Your task to perform on an android device: Open Youtube and go to the subscriptions tab Image 0: 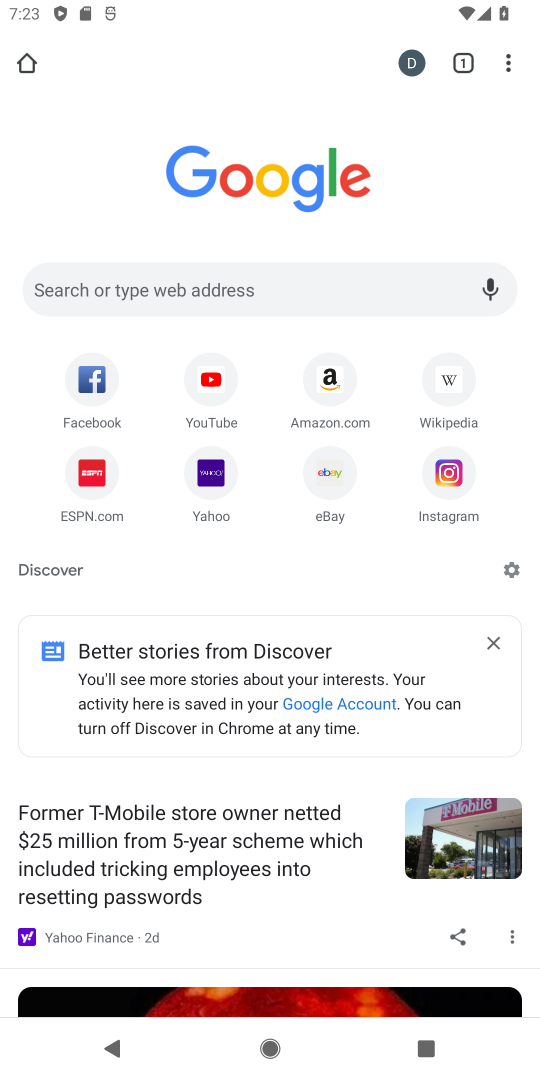
Step 0: click (214, 375)
Your task to perform on an android device: Open Youtube and go to the subscriptions tab Image 1: 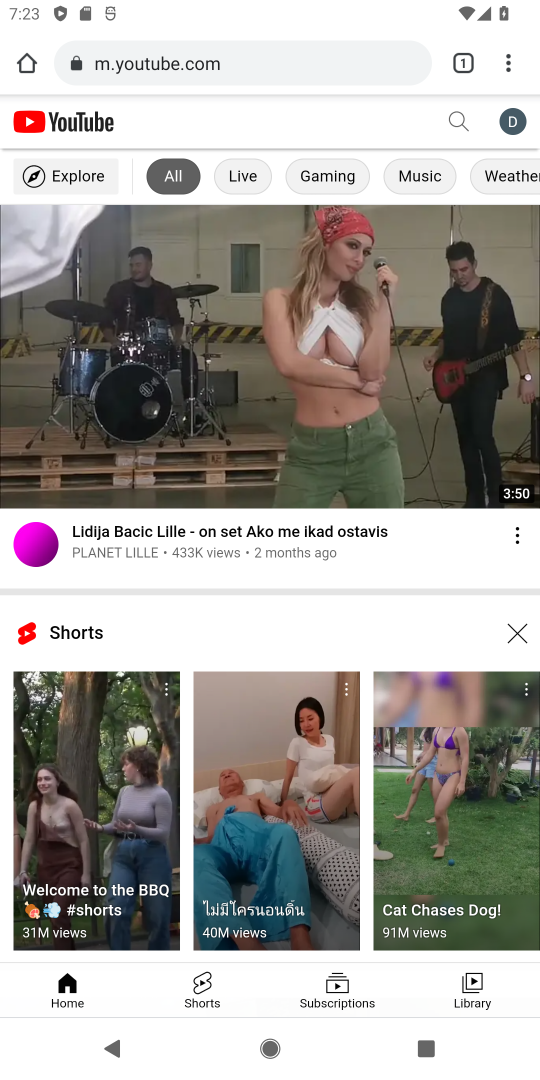
Step 1: click (333, 1000)
Your task to perform on an android device: Open Youtube and go to the subscriptions tab Image 2: 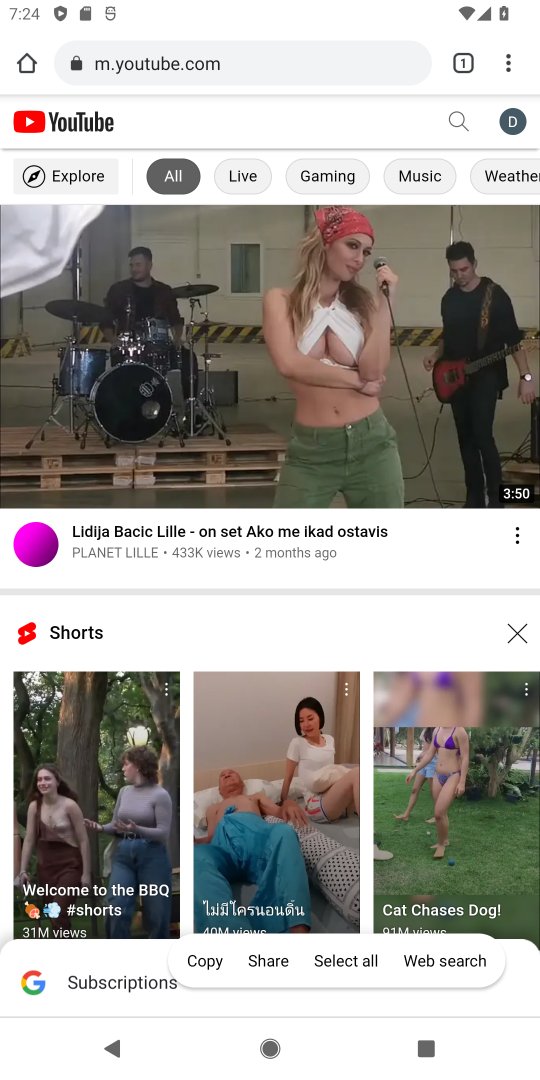
Step 2: task complete